Your task to perform on an android device: Clear all items from cart on amazon. Search for razer blade on amazon, select the first entry, and add it to the cart. Image 0: 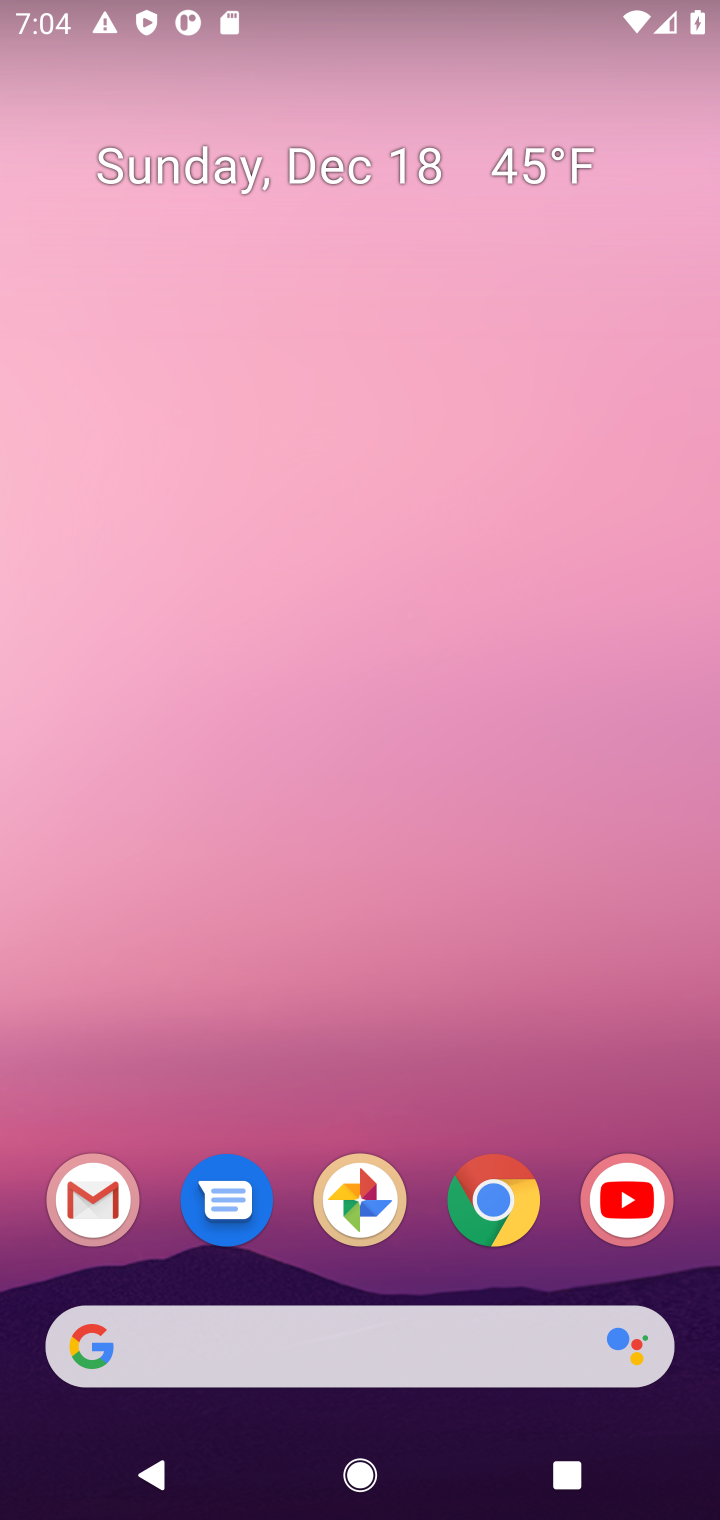
Step 0: click (499, 1206)
Your task to perform on an android device: Clear all items from cart on amazon. Search for razer blade on amazon, select the first entry, and add it to the cart. Image 1: 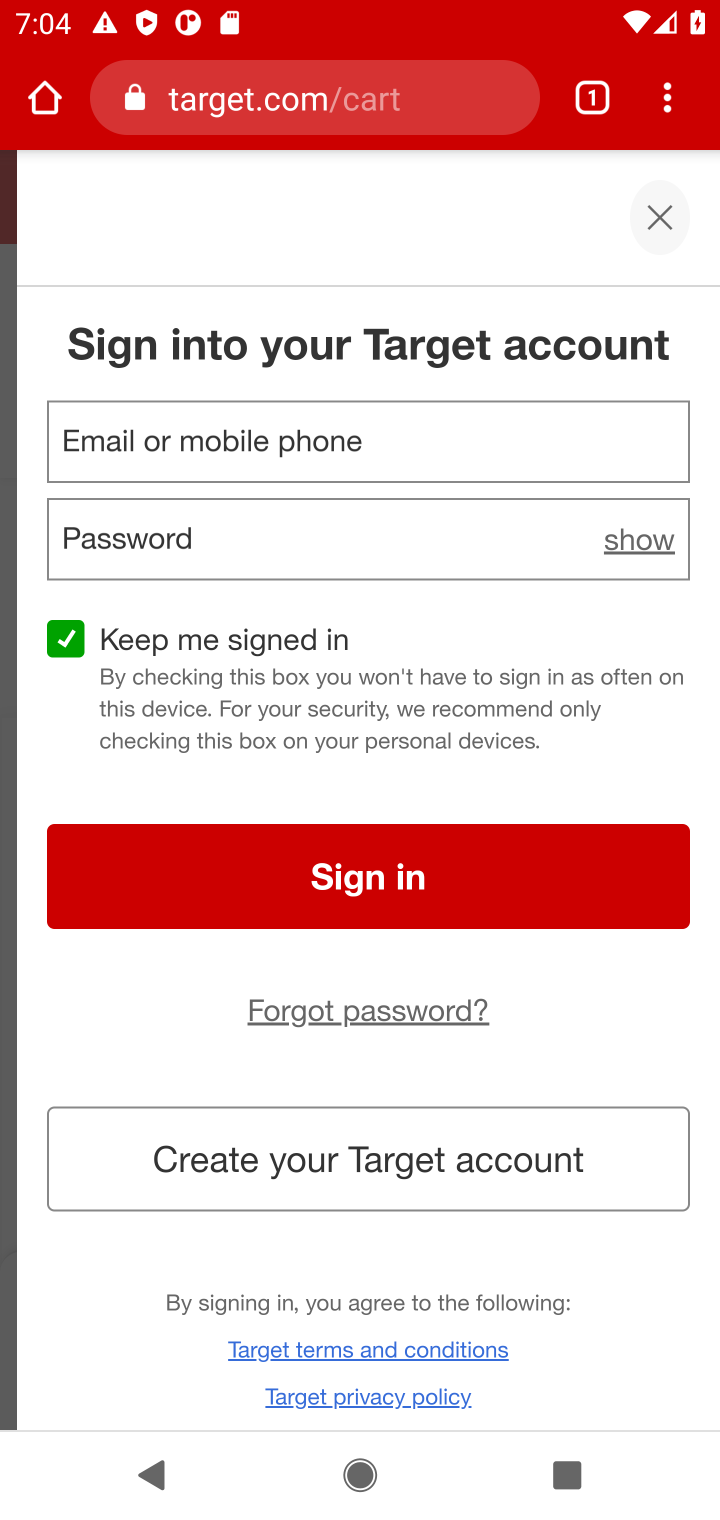
Step 1: click (277, 102)
Your task to perform on an android device: Clear all items from cart on amazon. Search for razer blade on amazon, select the first entry, and add it to the cart. Image 2: 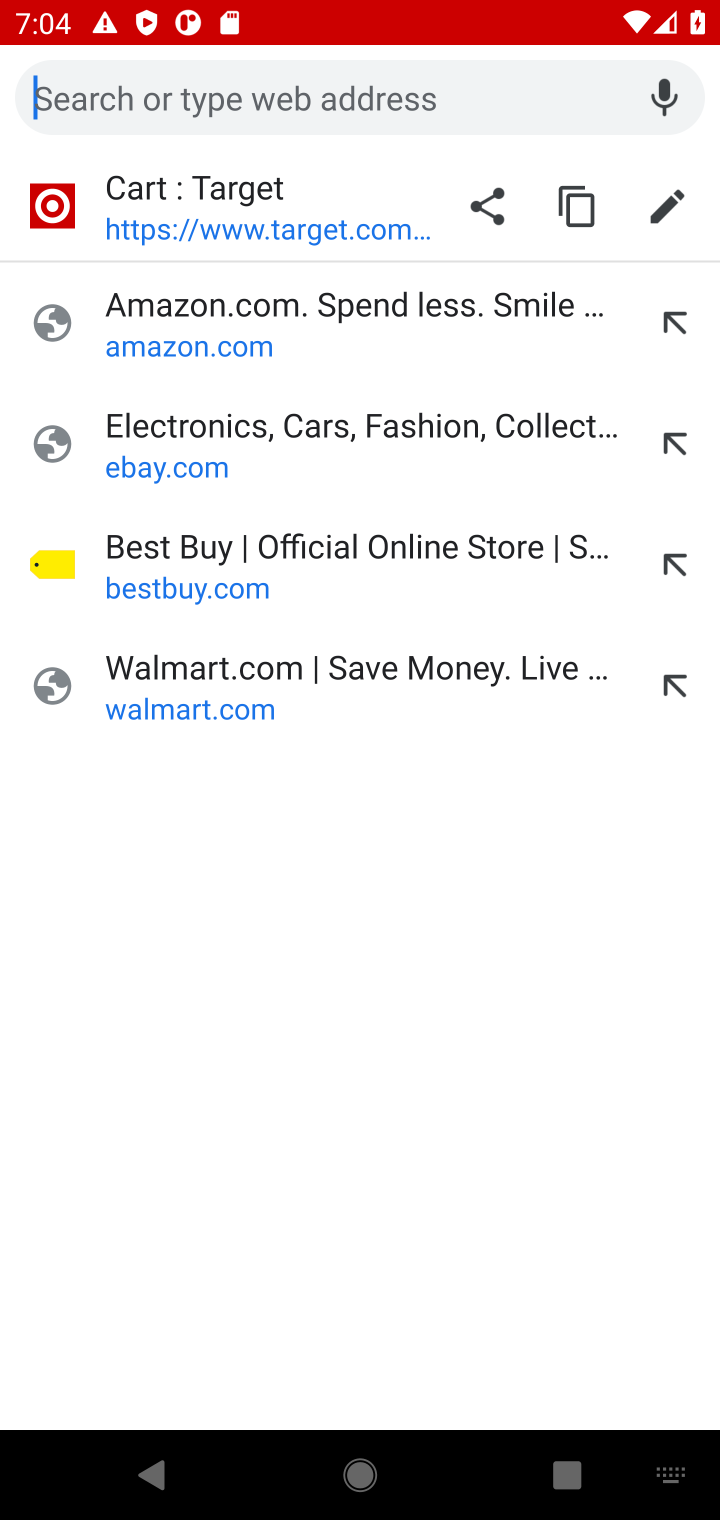
Step 2: click (167, 352)
Your task to perform on an android device: Clear all items from cart on amazon. Search for razer blade on amazon, select the first entry, and add it to the cart. Image 3: 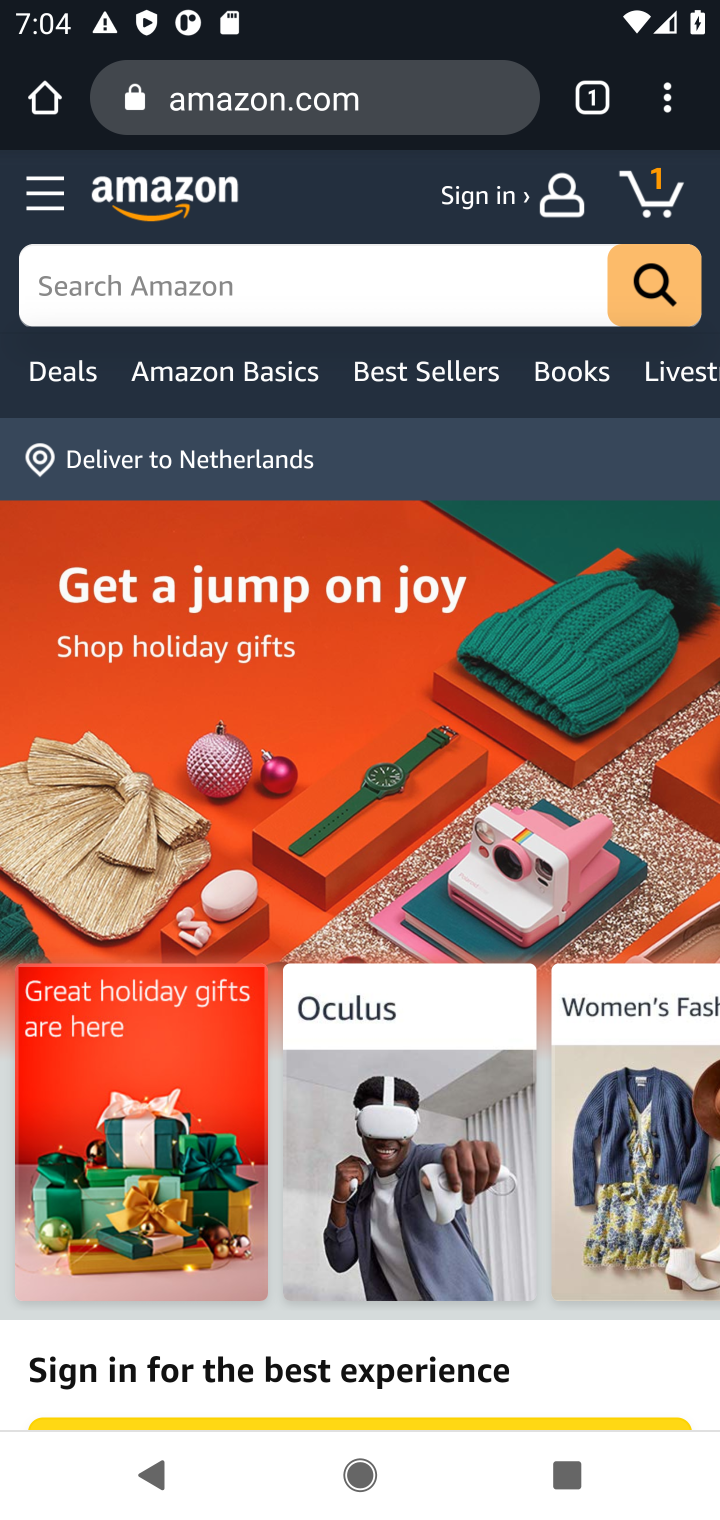
Step 3: click (658, 209)
Your task to perform on an android device: Clear all items from cart on amazon. Search for razer blade on amazon, select the first entry, and add it to the cart. Image 4: 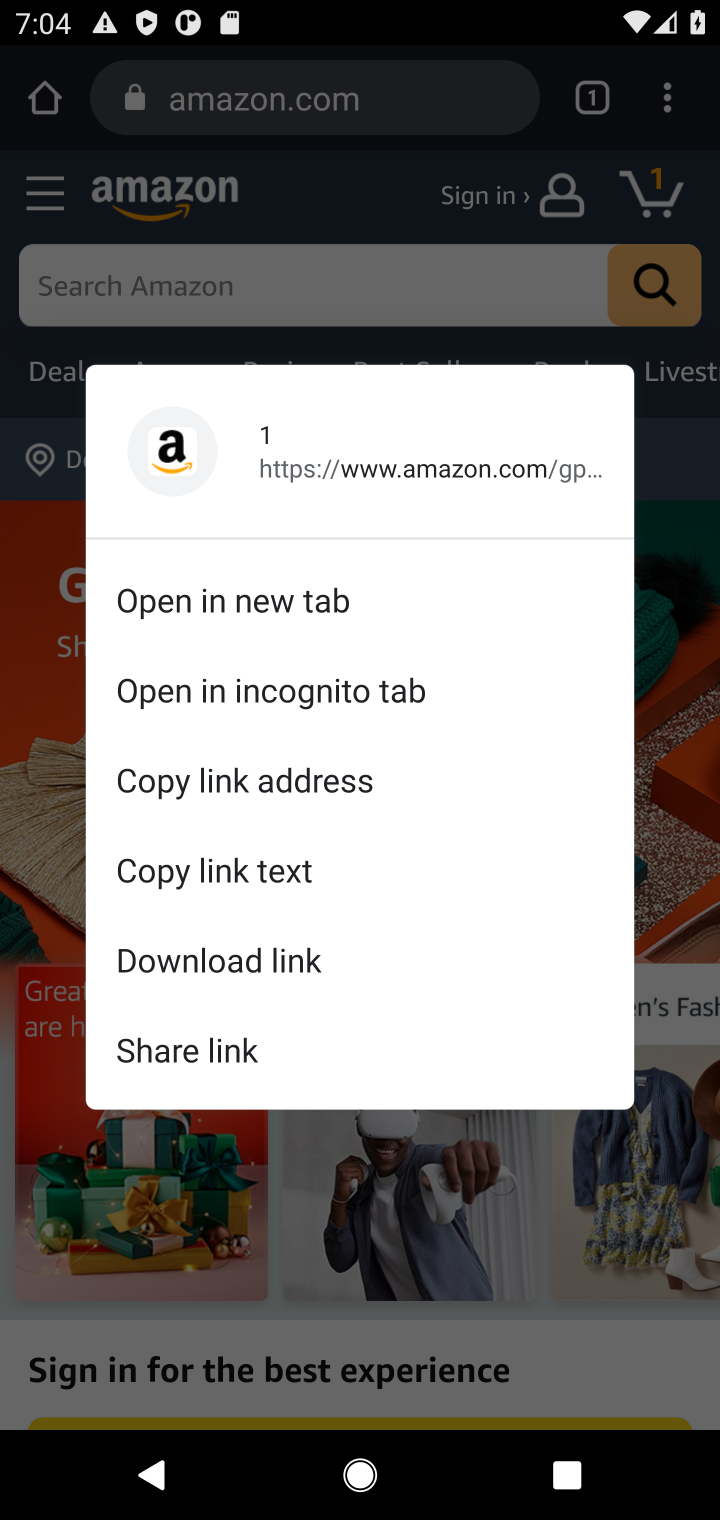
Step 4: click (660, 209)
Your task to perform on an android device: Clear all items from cart on amazon. Search for razer blade on amazon, select the first entry, and add it to the cart. Image 5: 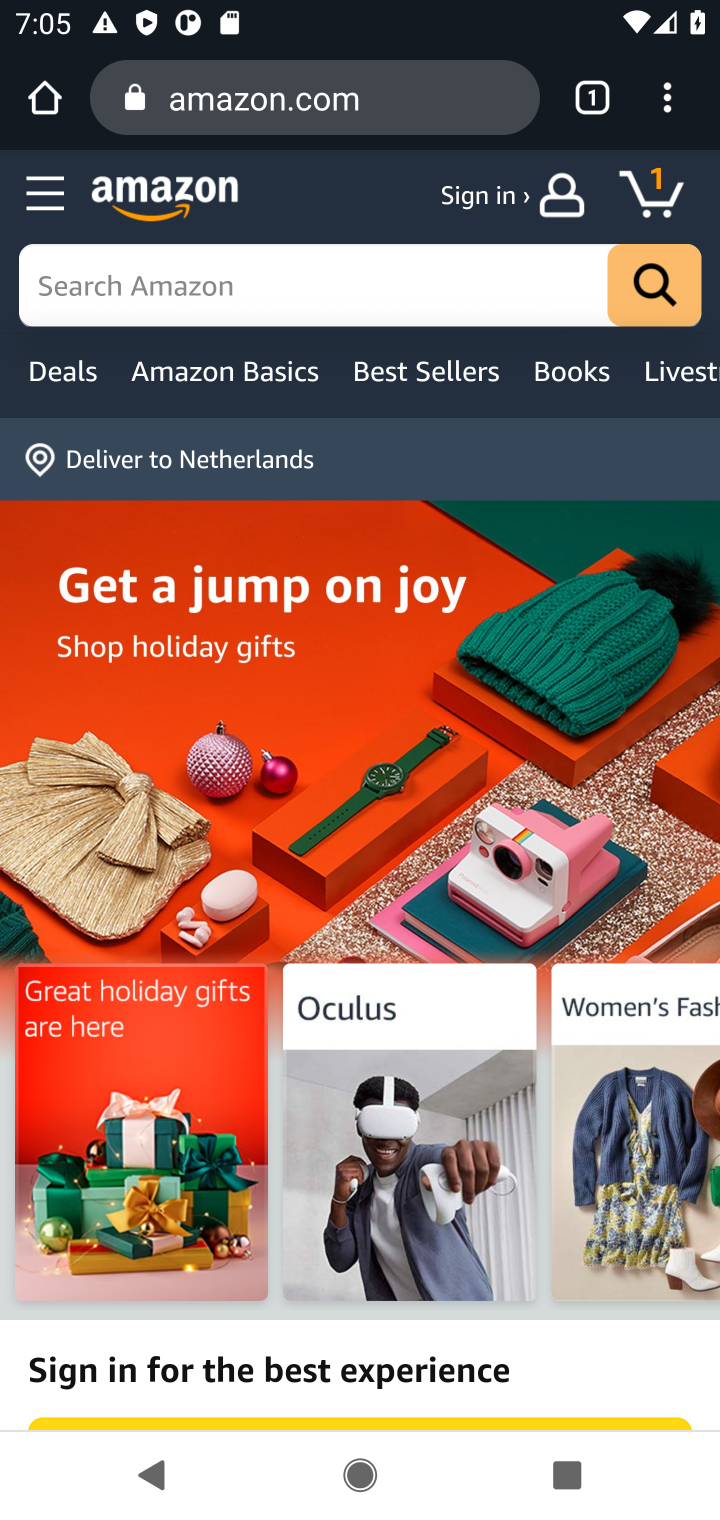
Step 5: click (658, 196)
Your task to perform on an android device: Clear all items from cart on amazon. Search for razer blade on amazon, select the first entry, and add it to the cart. Image 6: 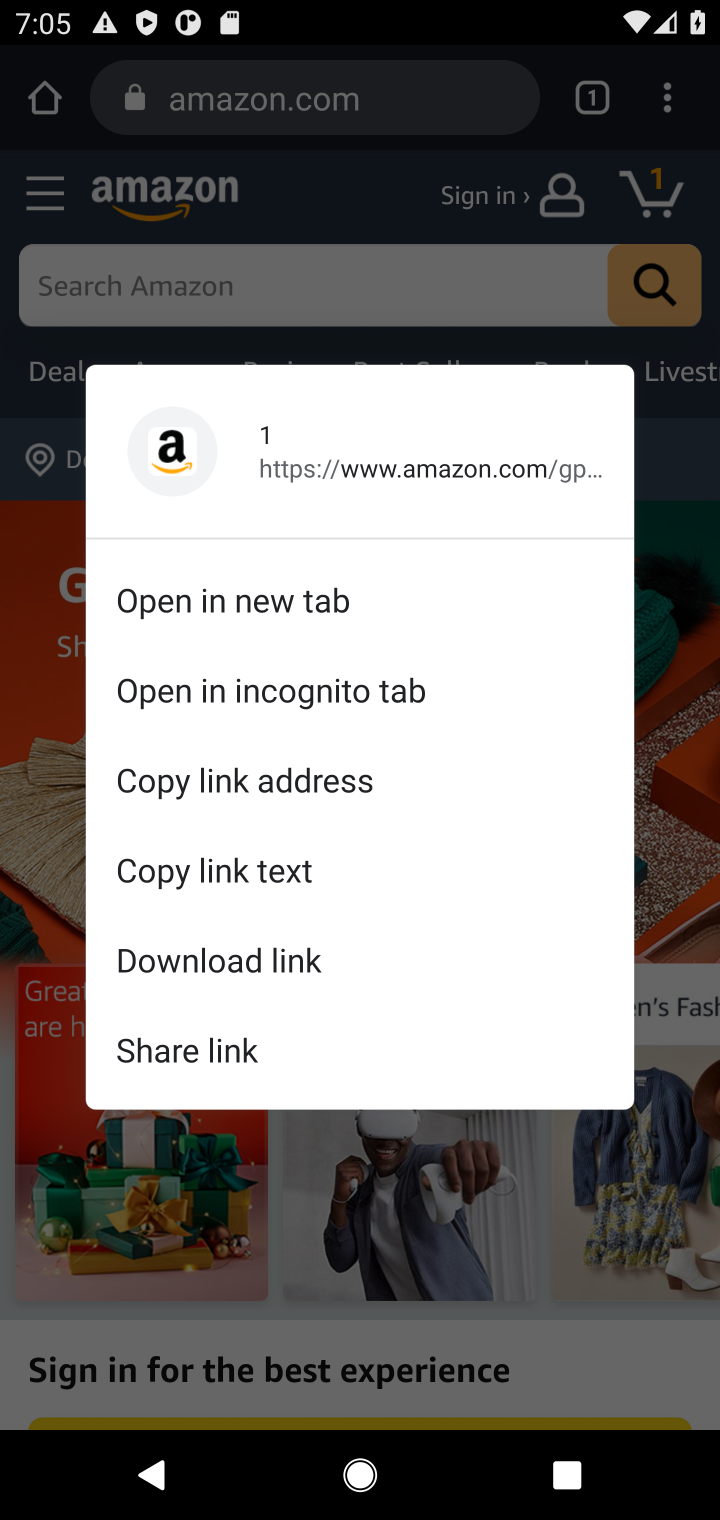
Step 6: click (654, 197)
Your task to perform on an android device: Clear all items from cart on amazon. Search for razer blade on amazon, select the first entry, and add it to the cart. Image 7: 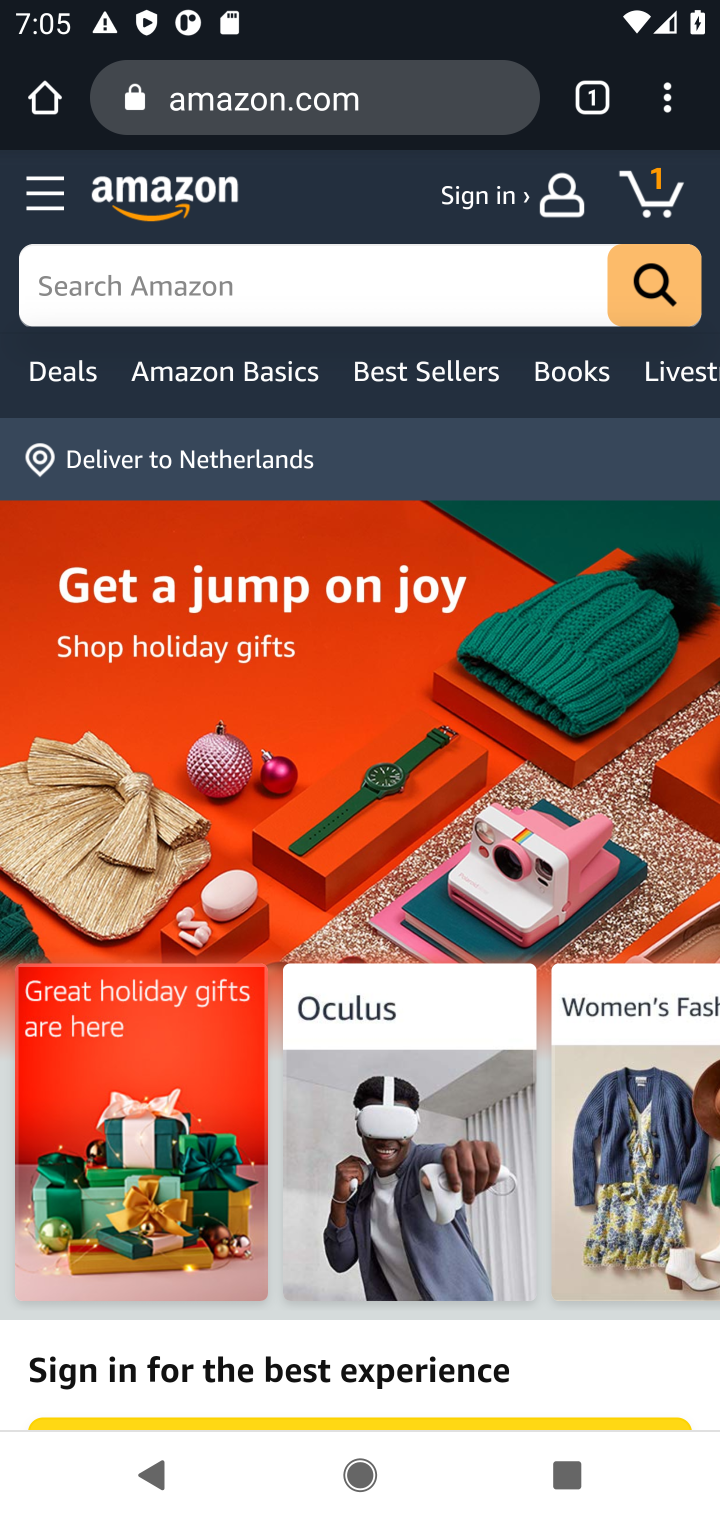
Step 7: click (654, 197)
Your task to perform on an android device: Clear all items from cart on amazon. Search for razer blade on amazon, select the first entry, and add it to the cart. Image 8: 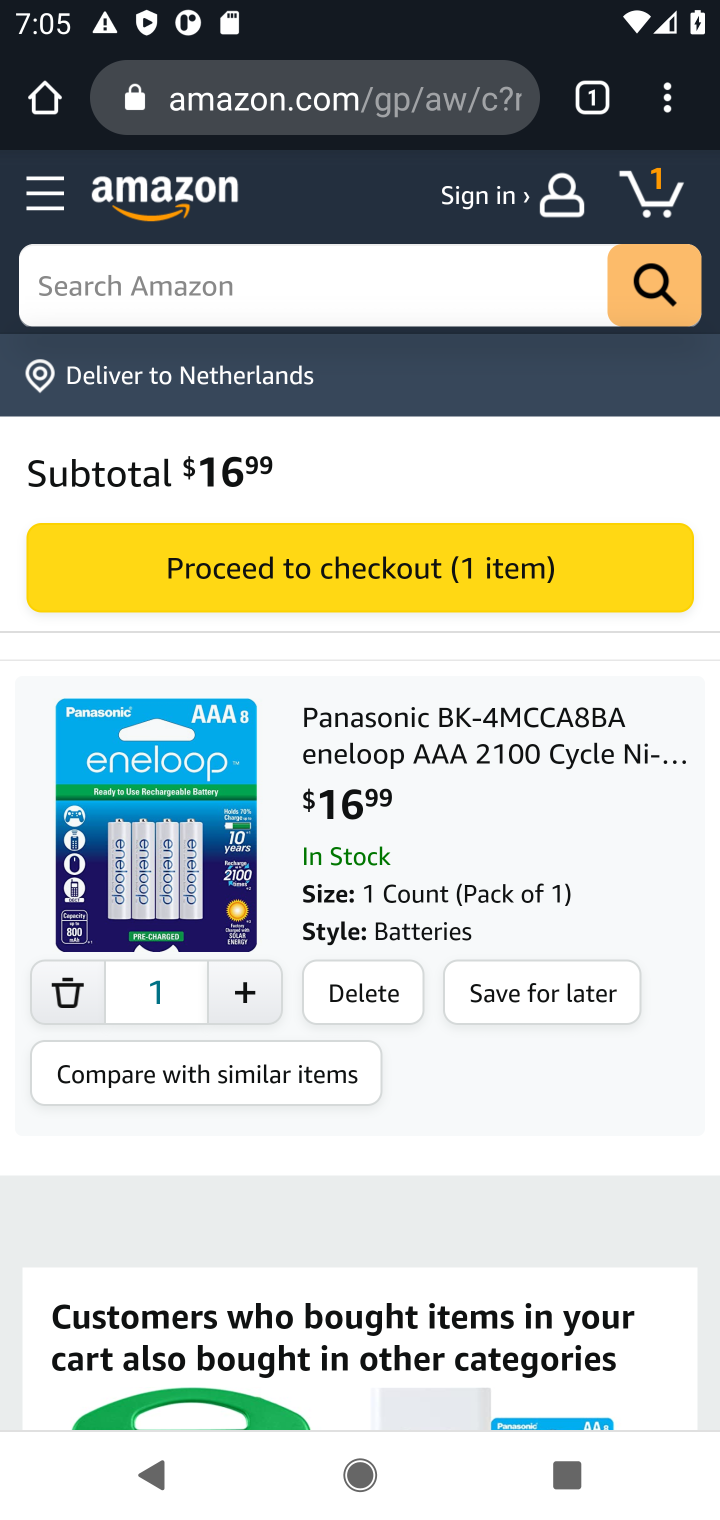
Step 8: click (336, 1014)
Your task to perform on an android device: Clear all items from cart on amazon. Search for razer blade on amazon, select the first entry, and add it to the cart. Image 9: 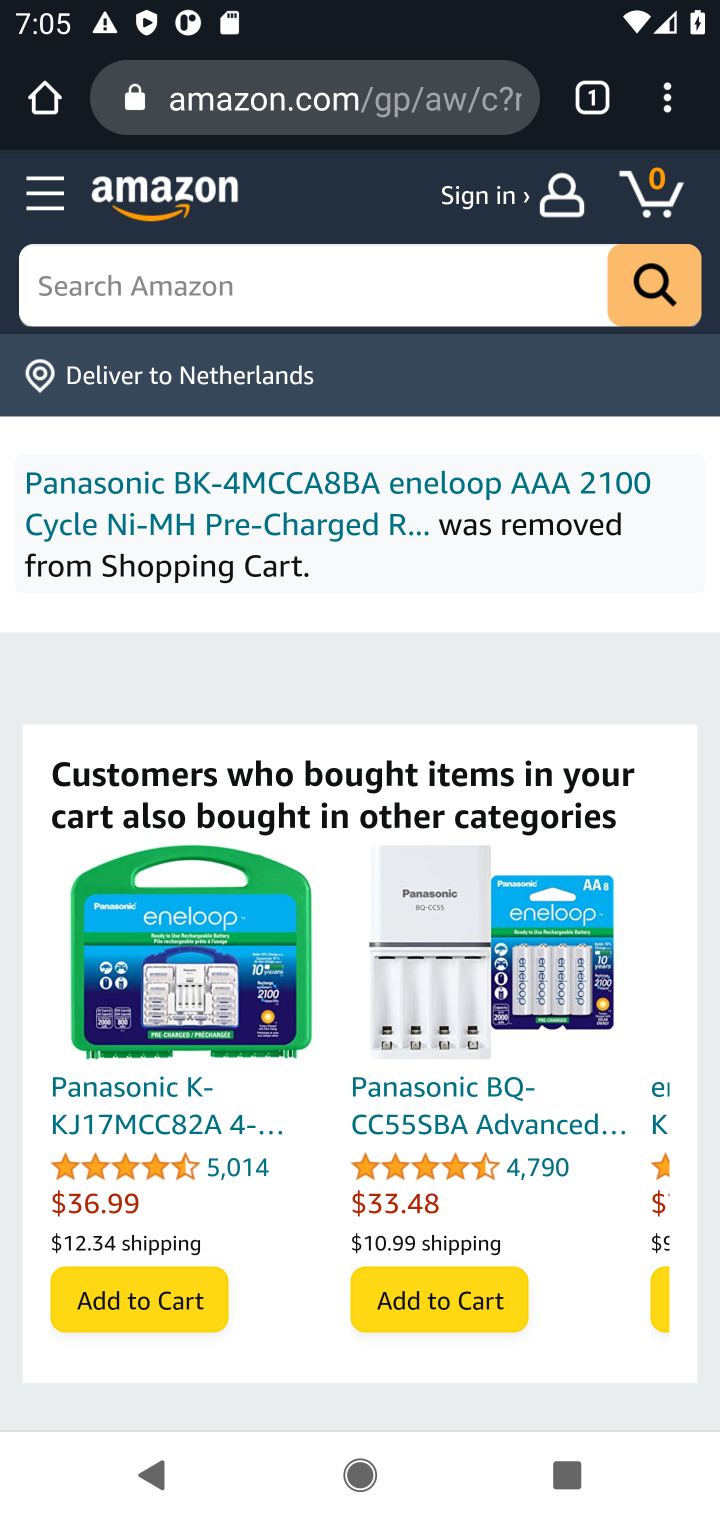
Step 9: click (176, 288)
Your task to perform on an android device: Clear all items from cart on amazon. Search for razer blade on amazon, select the first entry, and add it to the cart. Image 10: 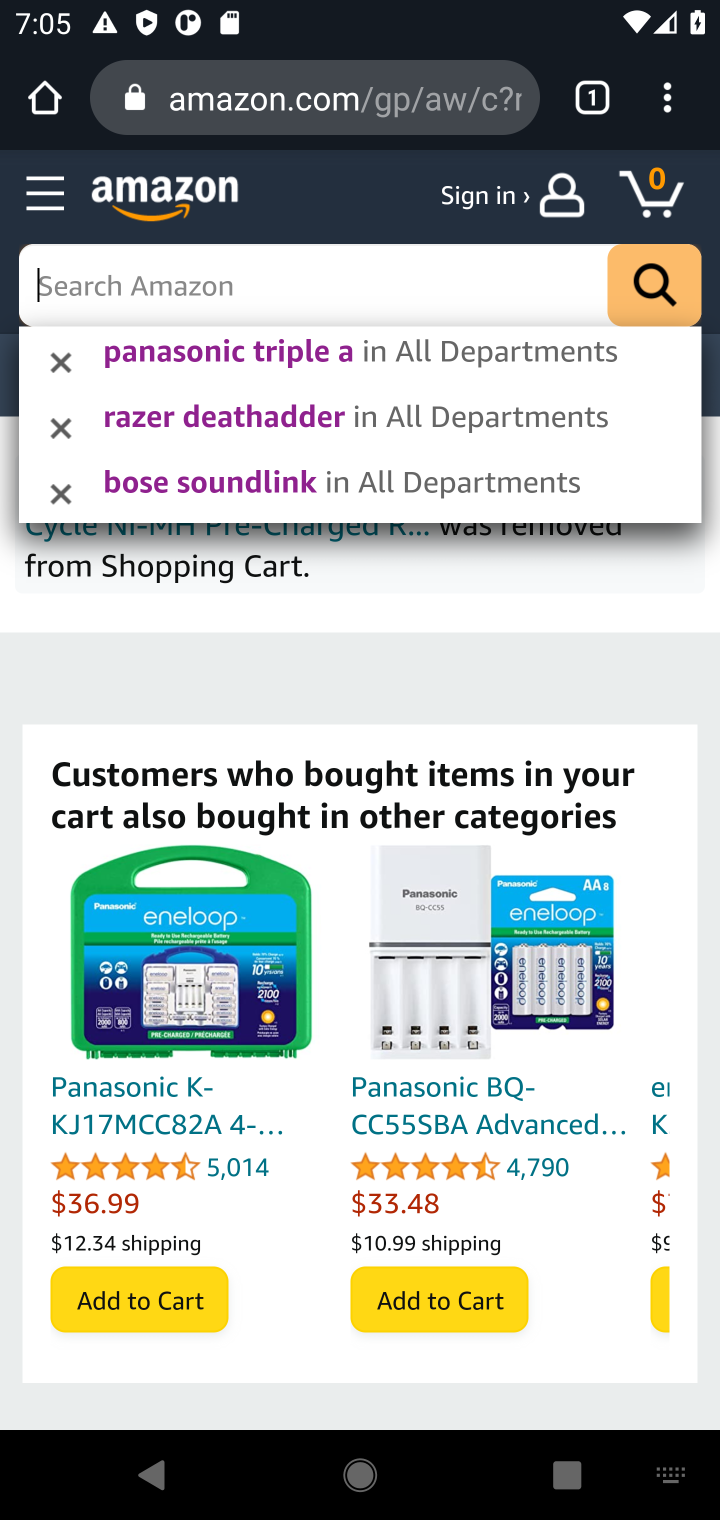
Step 10: type "razer blade"
Your task to perform on an android device: Clear all items from cart on amazon. Search for razer blade on amazon, select the first entry, and add it to the cart. Image 11: 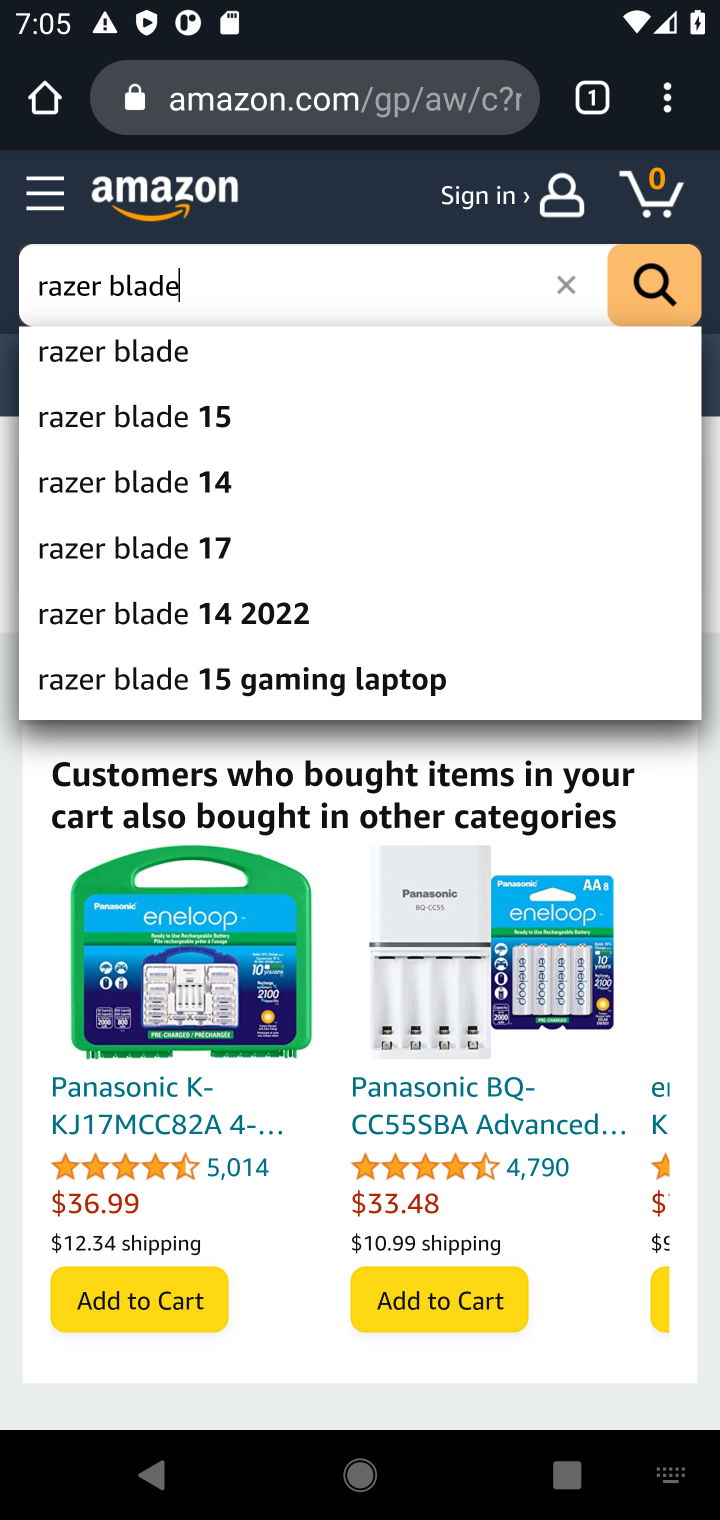
Step 11: click (157, 356)
Your task to perform on an android device: Clear all items from cart on amazon. Search for razer blade on amazon, select the first entry, and add it to the cart. Image 12: 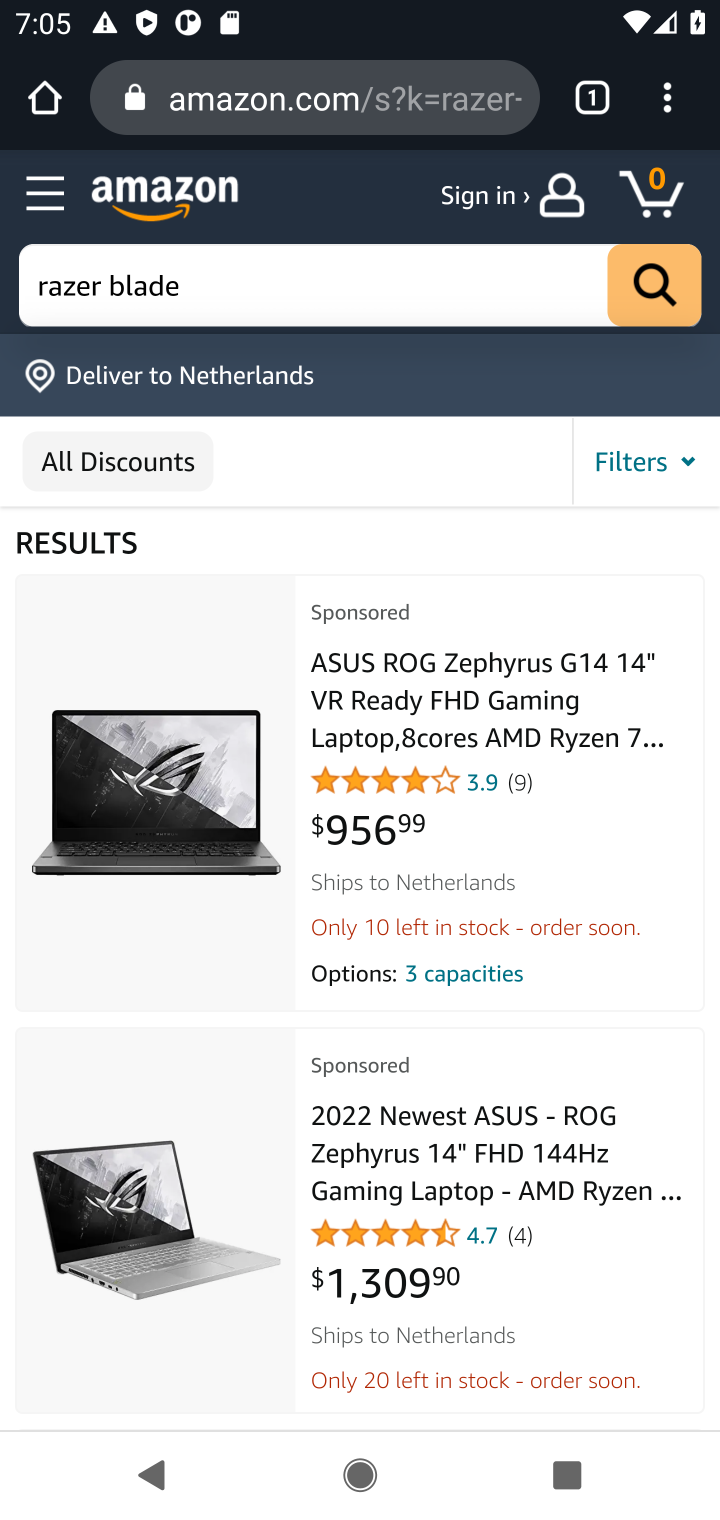
Step 12: click (659, 295)
Your task to perform on an android device: Clear all items from cart on amazon. Search for razer blade on amazon, select the first entry, and add it to the cart. Image 13: 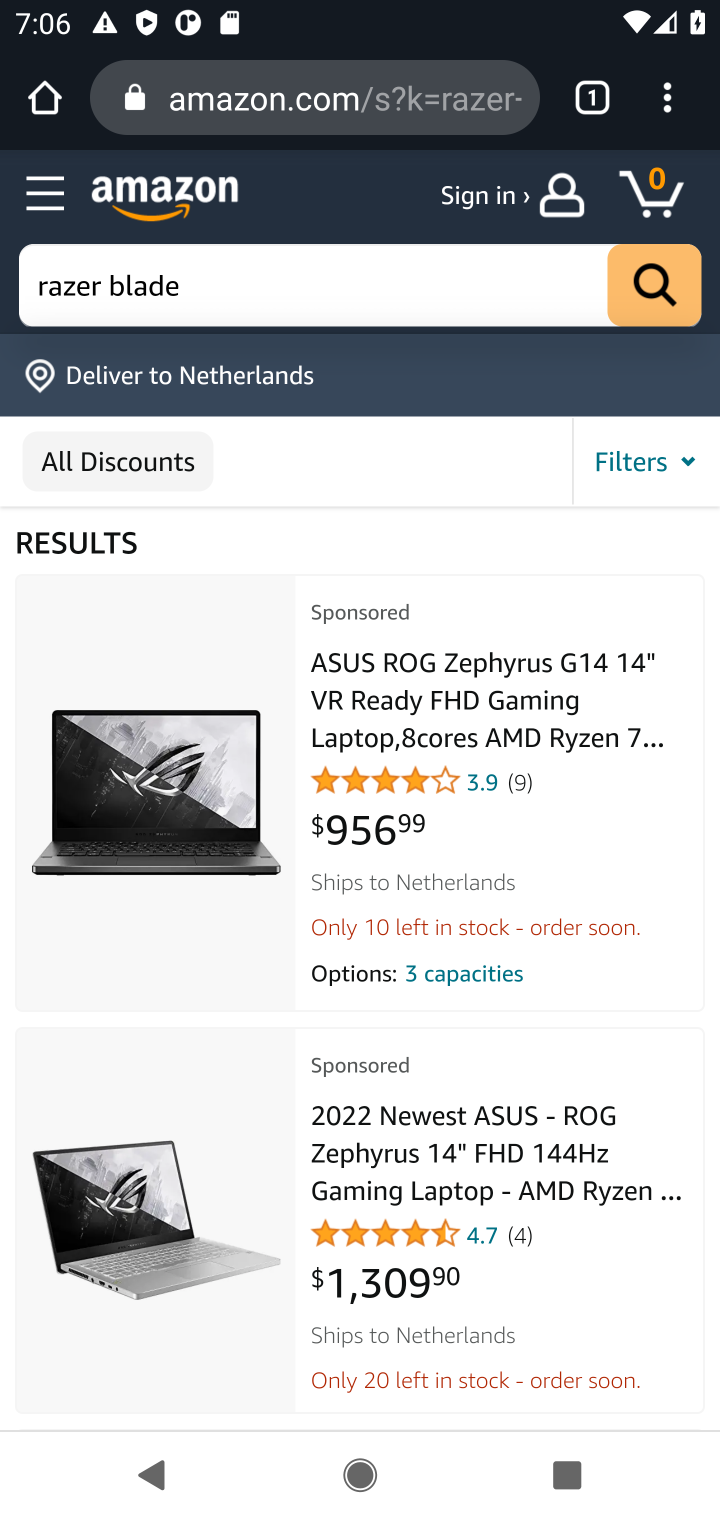
Step 13: task complete